Your task to perform on an android device: Open Chrome and go to settings Image 0: 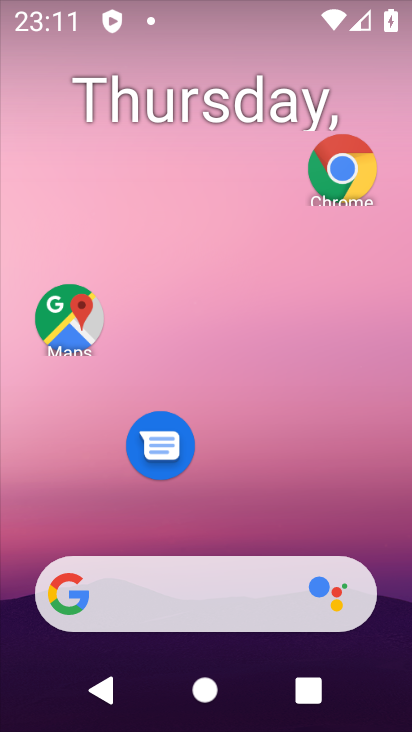
Step 0: drag from (209, 497) to (277, 241)
Your task to perform on an android device: Open Chrome and go to settings Image 1: 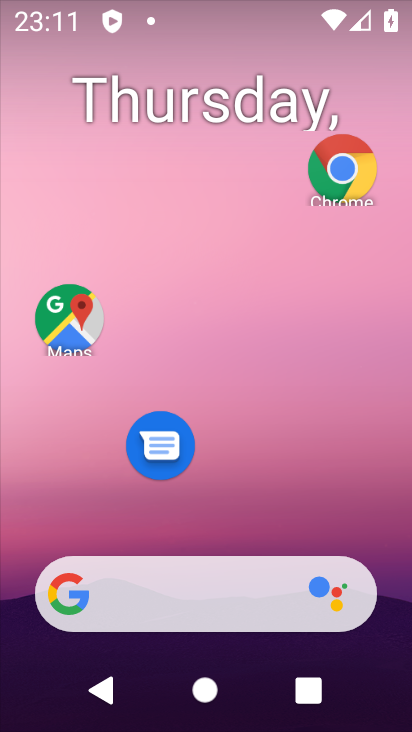
Step 1: click (337, 180)
Your task to perform on an android device: Open Chrome and go to settings Image 2: 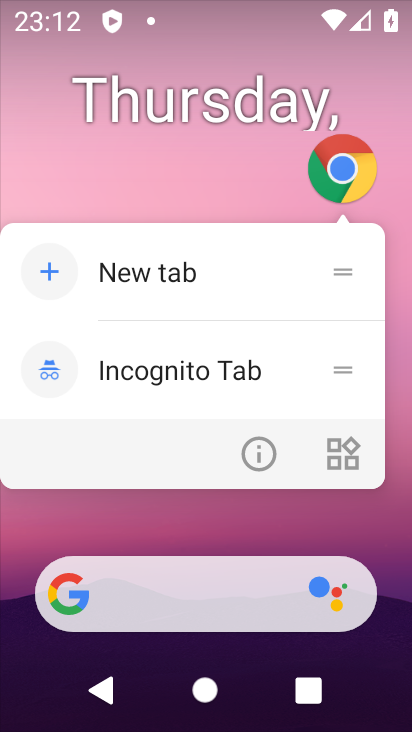
Step 2: click (265, 456)
Your task to perform on an android device: Open Chrome and go to settings Image 3: 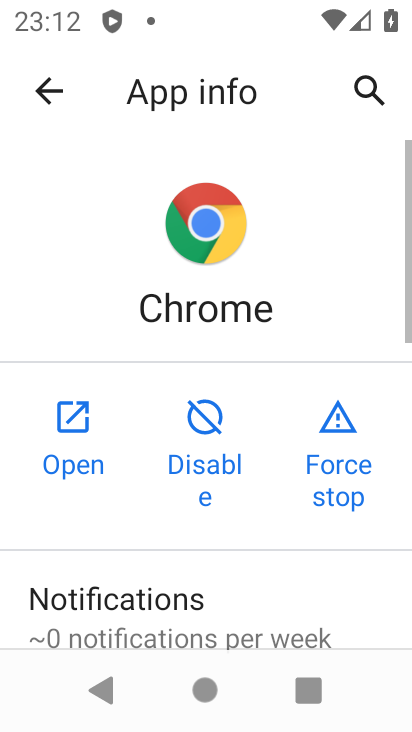
Step 3: click (58, 427)
Your task to perform on an android device: Open Chrome and go to settings Image 4: 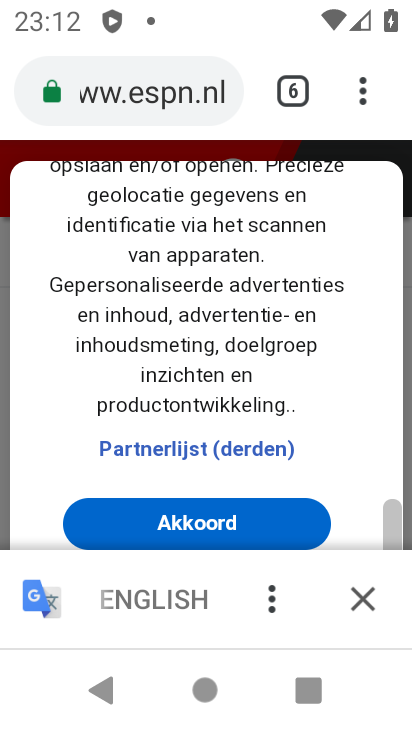
Step 4: click (356, 48)
Your task to perform on an android device: Open Chrome and go to settings Image 5: 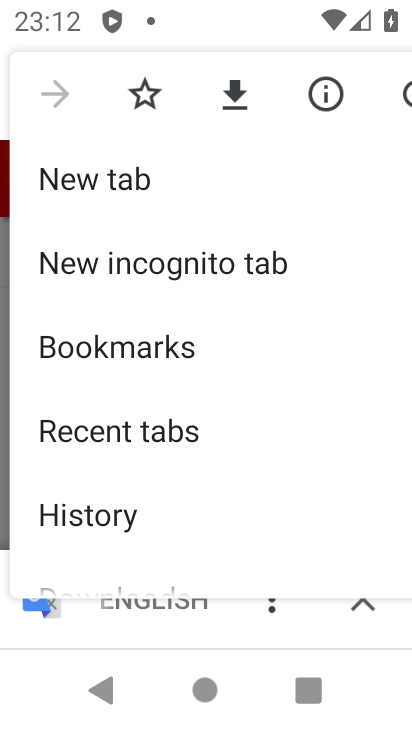
Step 5: drag from (176, 538) to (293, 12)
Your task to perform on an android device: Open Chrome and go to settings Image 6: 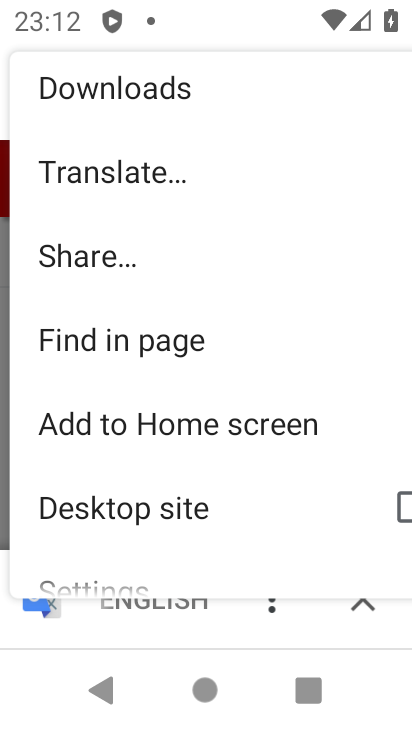
Step 6: click (114, 571)
Your task to perform on an android device: Open Chrome and go to settings Image 7: 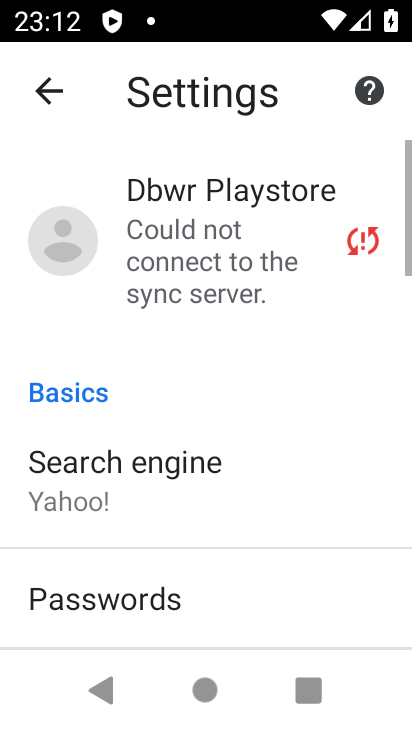
Step 7: task complete